Your task to perform on an android device: Open Youtube and go to "Your channel" Image 0: 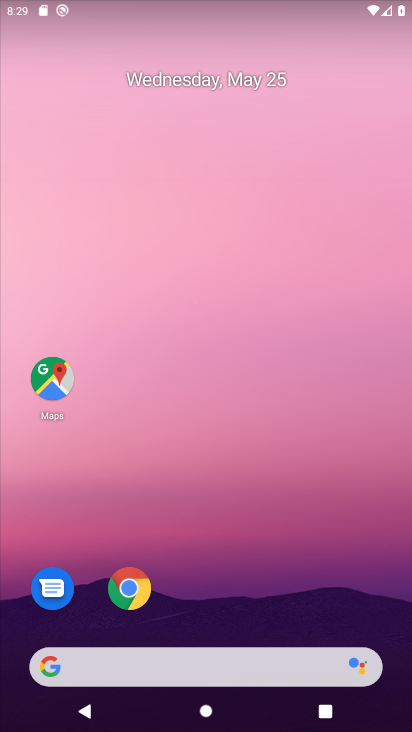
Step 0: drag from (384, 624) to (380, 316)
Your task to perform on an android device: Open Youtube and go to "Your channel" Image 1: 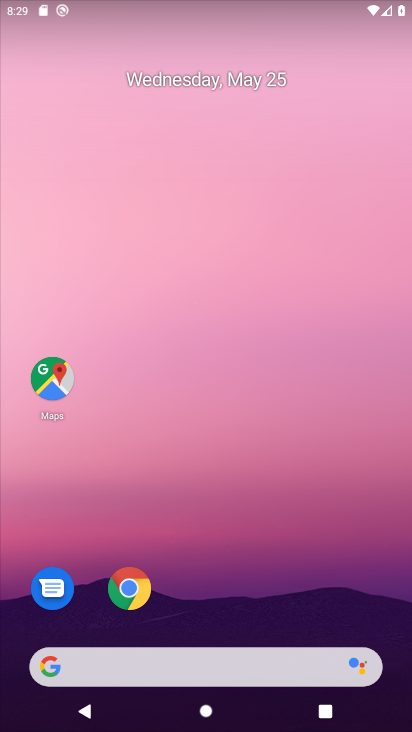
Step 1: drag from (379, 616) to (392, 282)
Your task to perform on an android device: Open Youtube and go to "Your channel" Image 2: 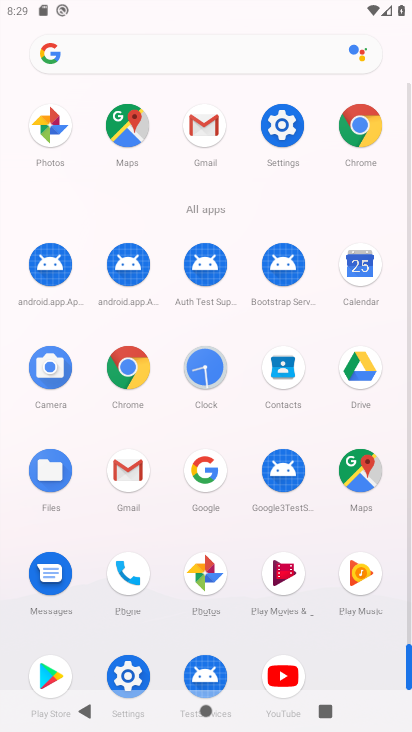
Step 2: drag from (375, 649) to (374, 492)
Your task to perform on an android device: Open Youtube and go to "Your channel" Image 3: 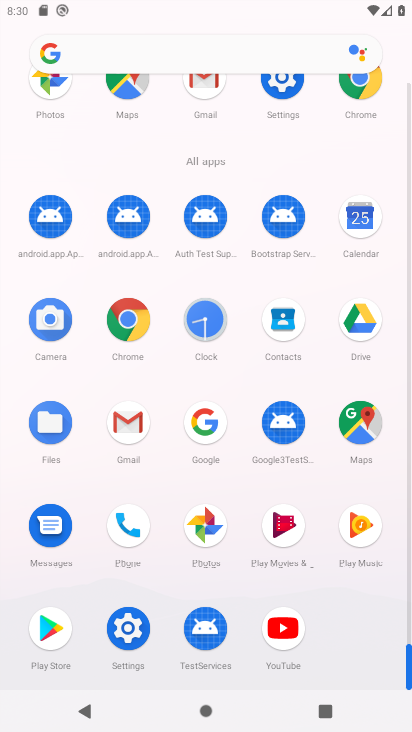
Step 3: click (284, 631)
Your task to perform on an android device: Open Youtube and go to "Your channel" Image 4: 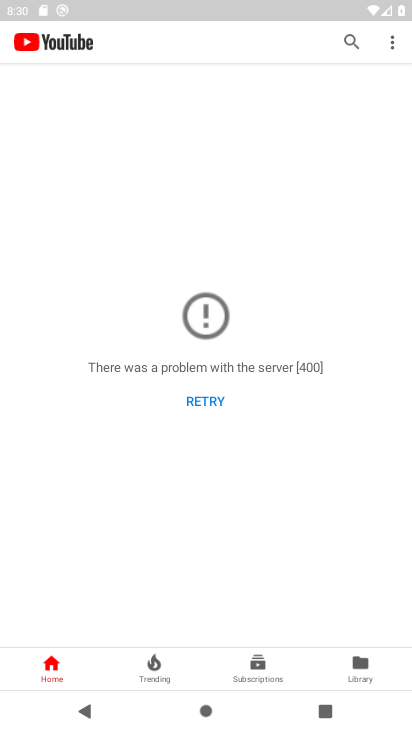
Step 4: click (366, 663)
Your task to perform on an android device: Open Youtube and go to "Your channel" Image 5: 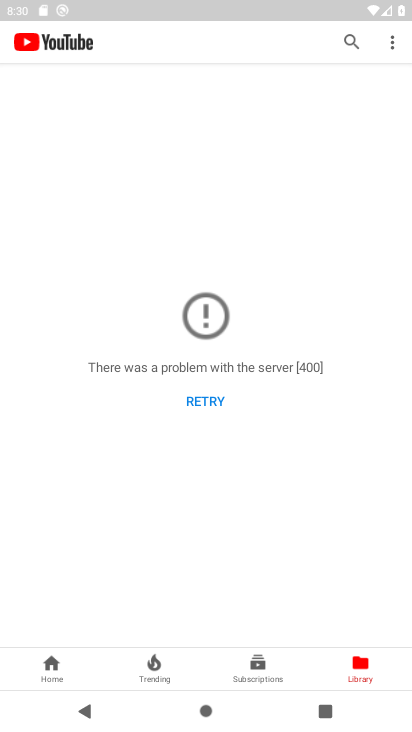
Step 5: click (389, 42)
Your task to perform on an android device: Open Youtube and go to "Your channel" Image 6: 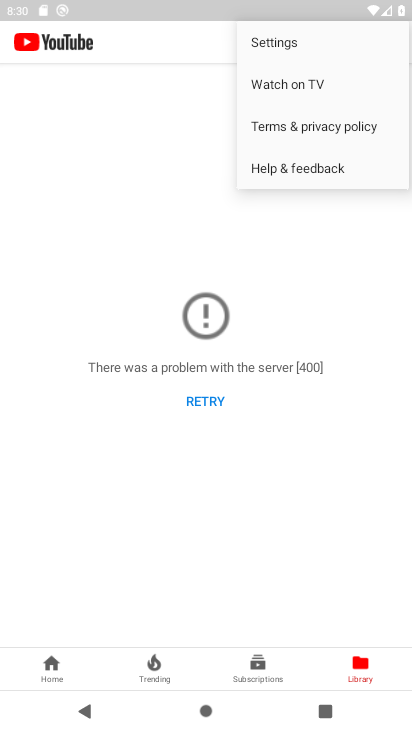
Step 6: click (198, 258)
Your task to perform on an android device: Open Youtube and go to "Your channel" Image 7: 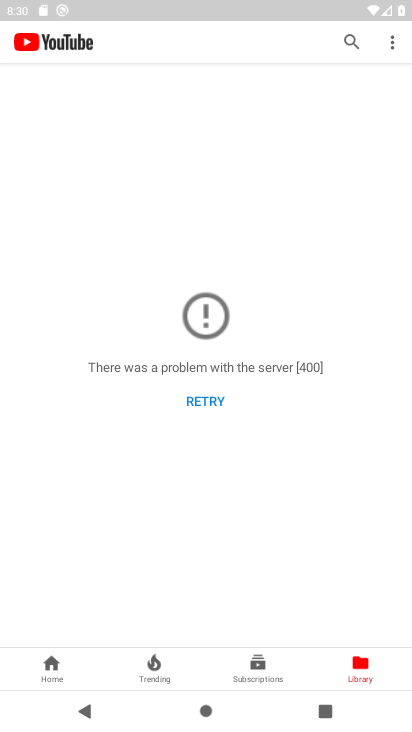
Step 7: task complete